Your task to perform on an android device: Search for logitech g903 on amazon.com, select the first entry, add it to the cart, then select checkout. Image 0: 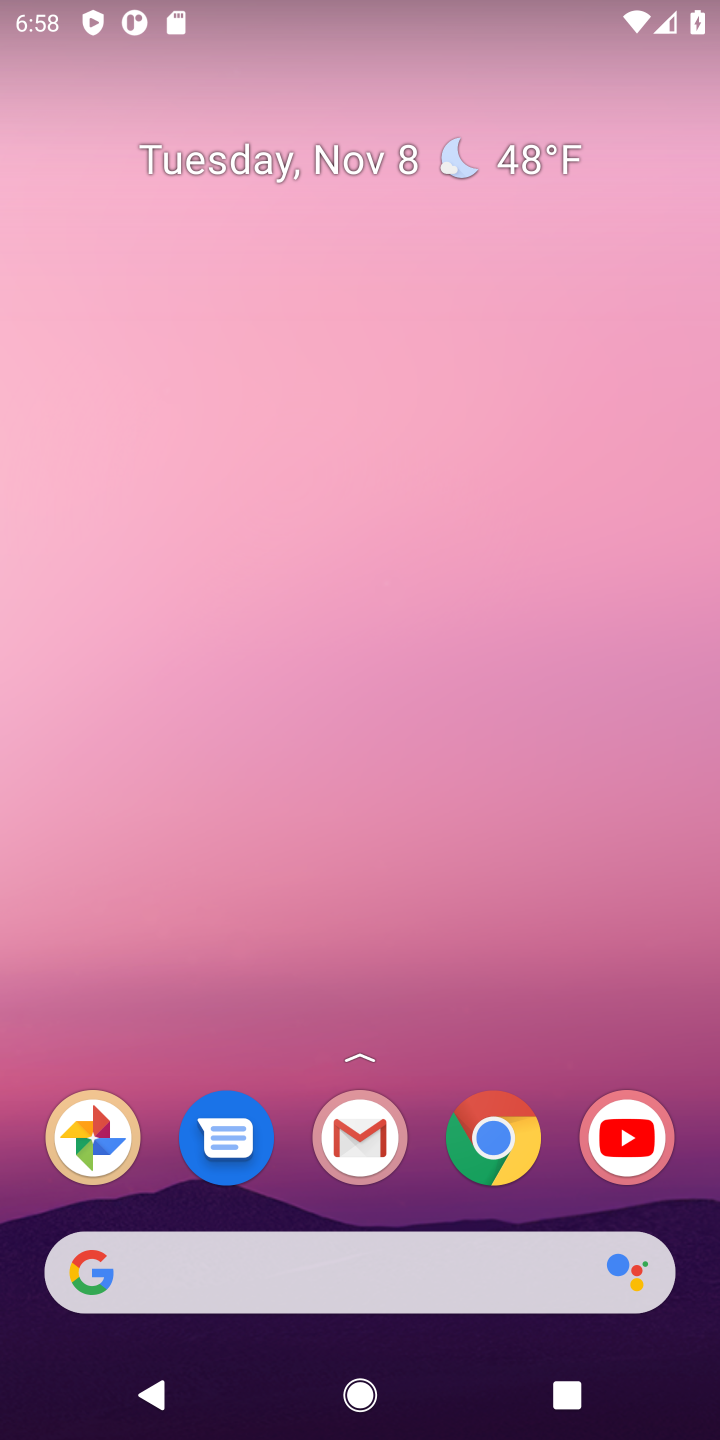
Step 0: click (505, 1133)
Your task to perform on an android device: Search for logitech g903 on amazon.com, select the first entry, add it to the cart, then select checkout. Image 1: 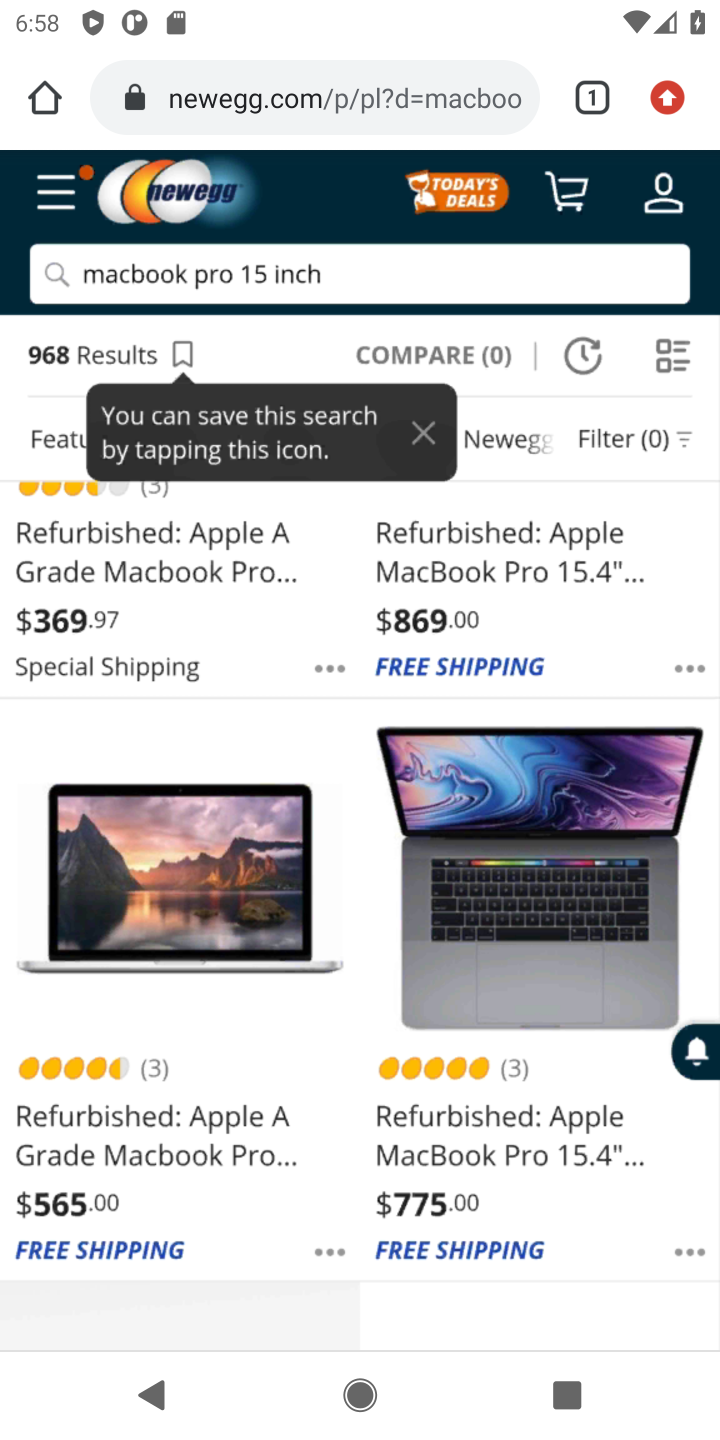
Step 1: click (398, 82)
Your task to perform on an android device: Search for logitech g903 on amazon.com, select the first entry, add it to the cart, then select checkout. Image 2: 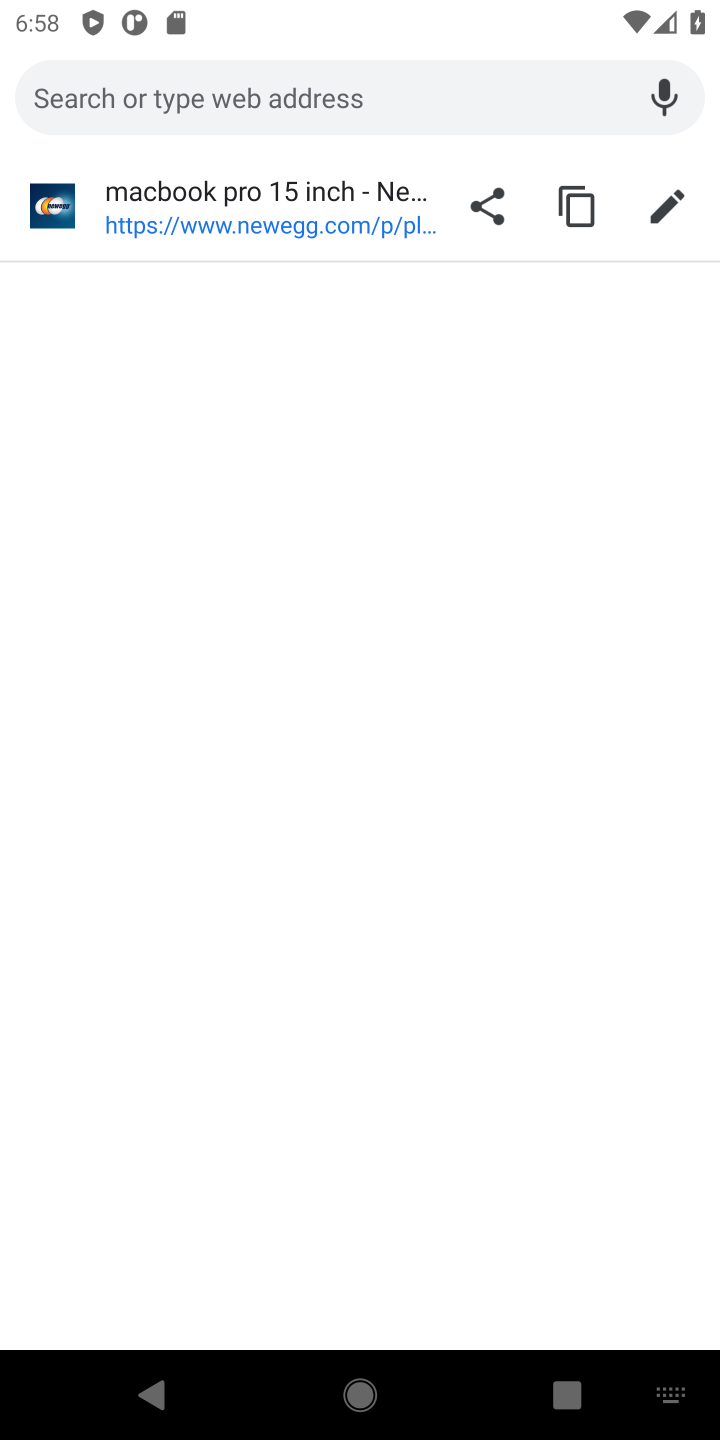
Step 2: type "amazon.com"
Your task to perform on an android device: Search for logitech g903 on amazon.com, select the first entry, add it to the cart, then select checkout. Image 3: 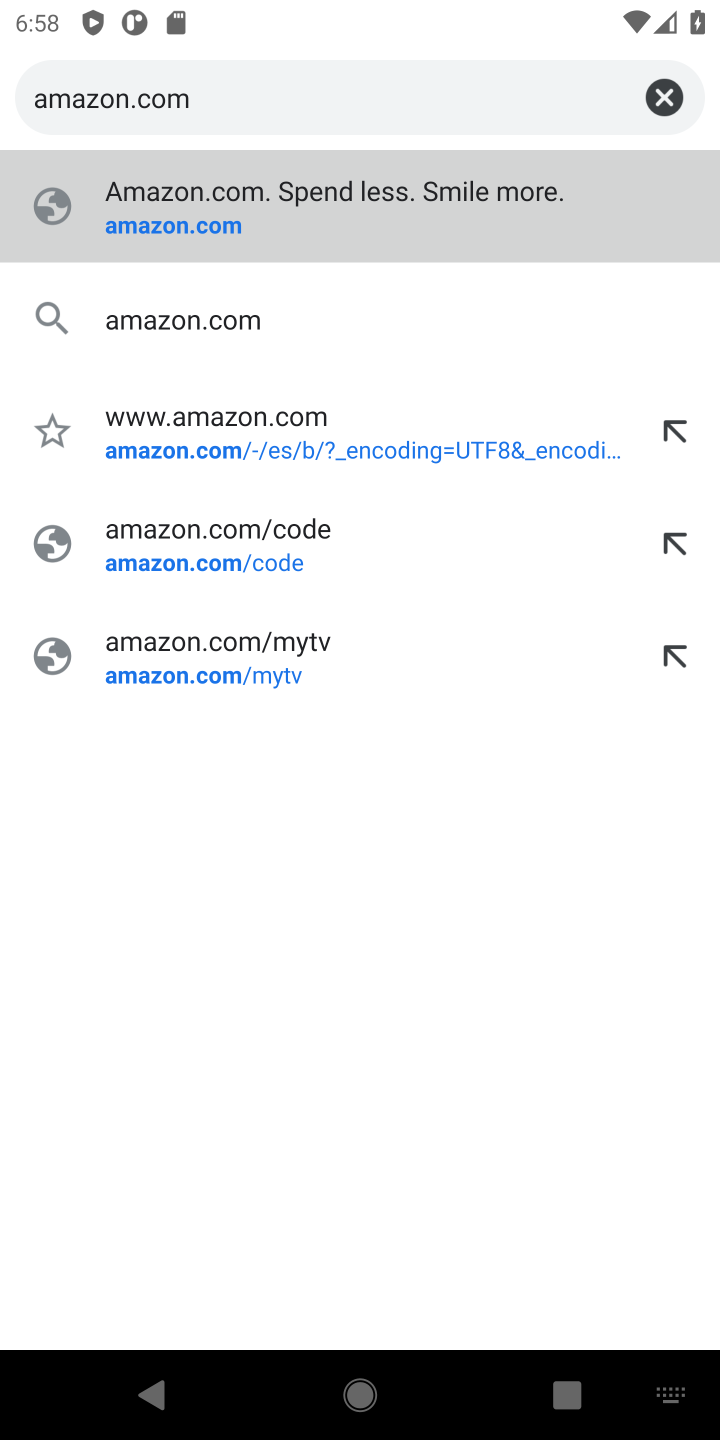
Step 3: press enter
Your task to perform on an android device: Search for logitech g903 on amazon.com, select the first entry, add it to the cart, then select checkout. Image 4: 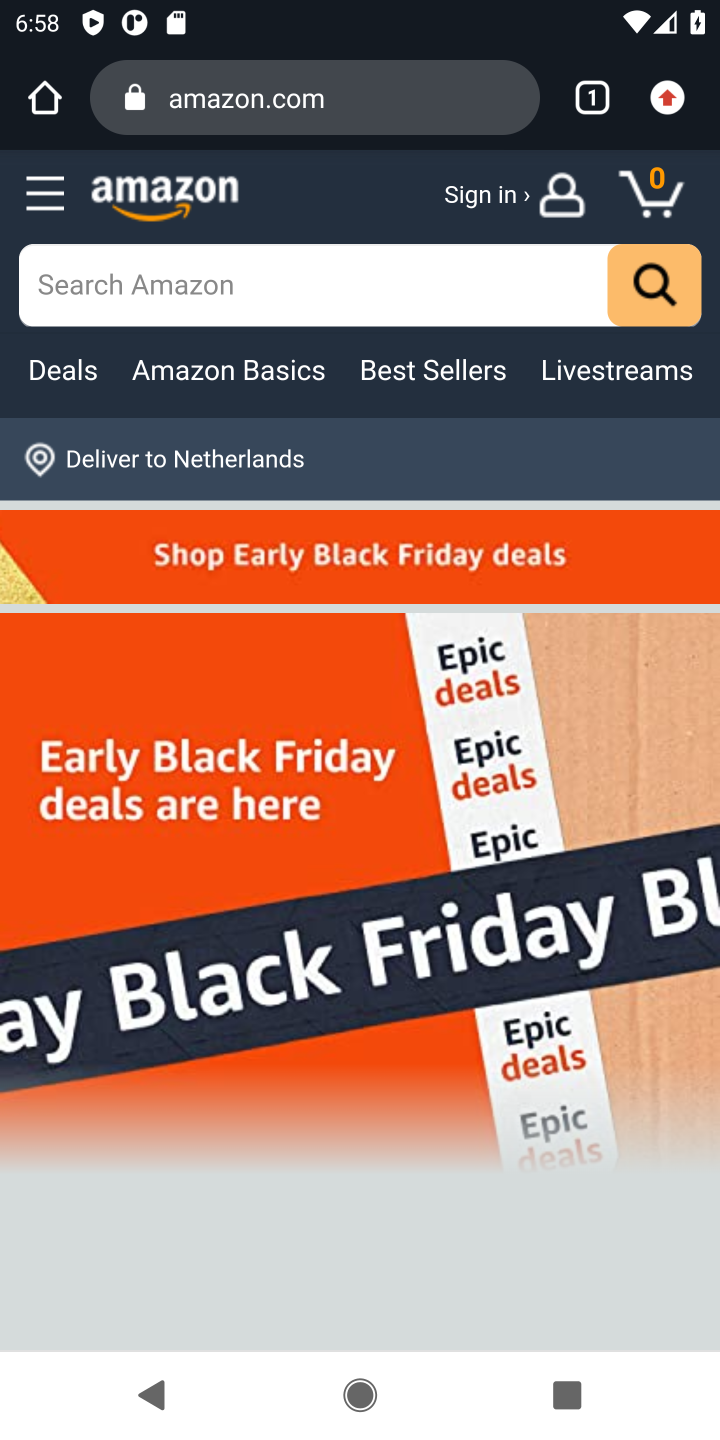
Step 4: click (303, 280)
Your task to perform on an android device: Search for logitech g903 on amazon.com, select the first entry, add it to the cart, then select checkout. Image 5: 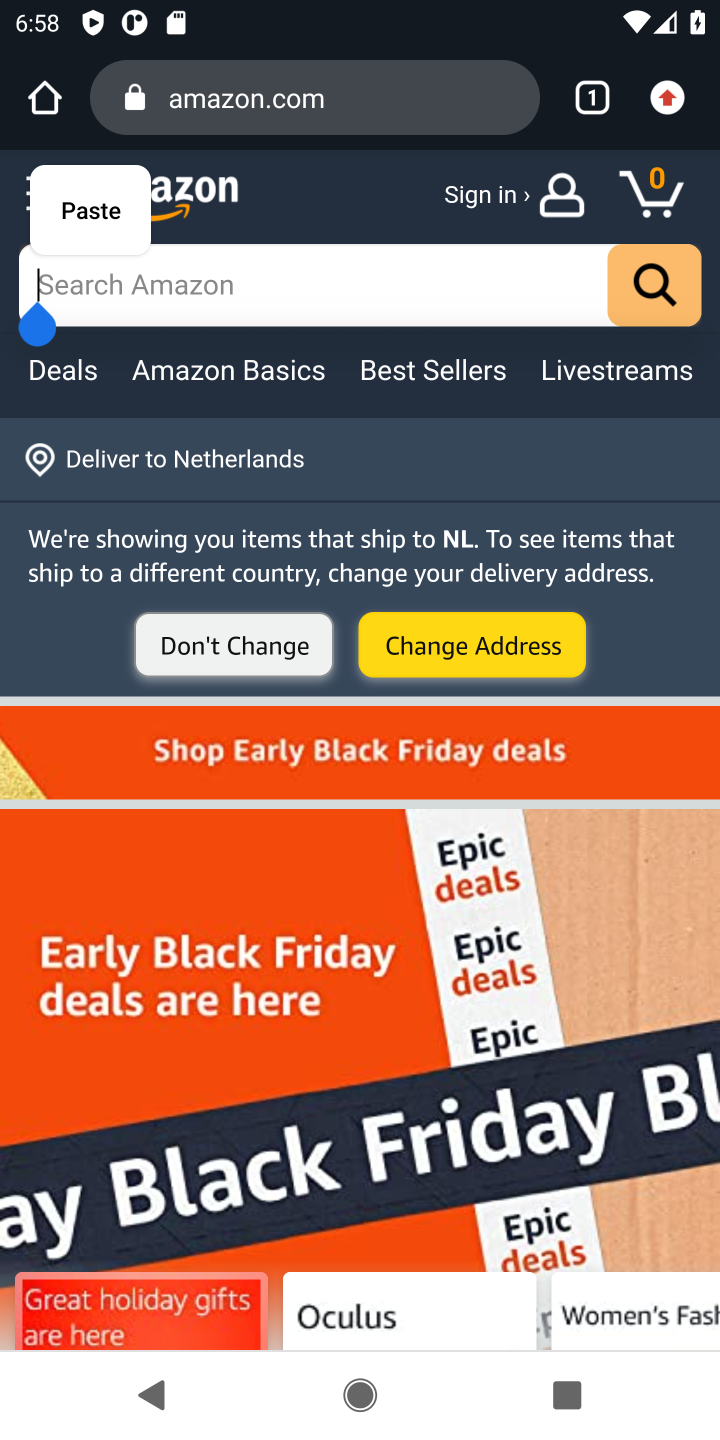
Step 5: click (214, 292)
Your task to perform on an android device: Search for logitech g903 on amazon.com, select the first entry, add it to the cart, then select checkout. Image 6: 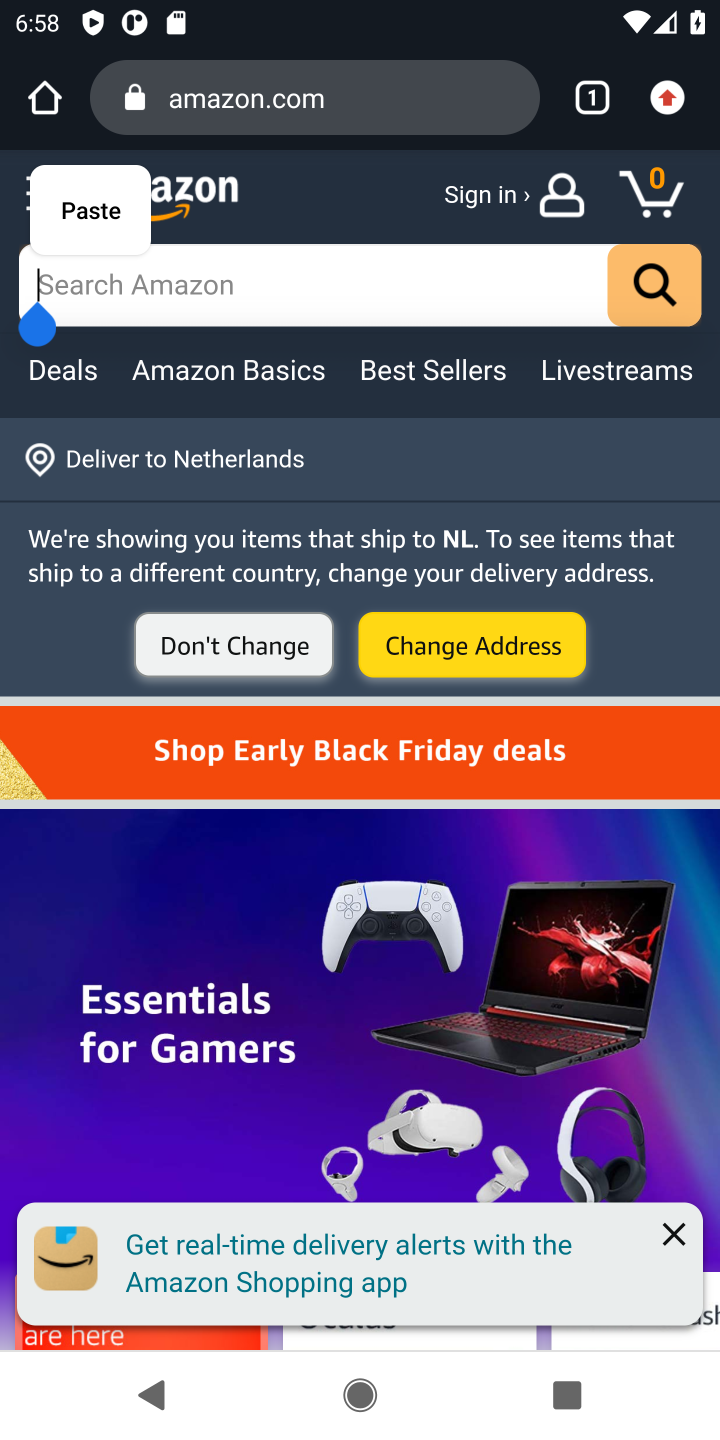
Step 6: type " logitech g903"
Your task to perform on an android device: Search for logitech g903 on amazon.com, select the first entry, add it to the cart, then select checkout. Image 7: 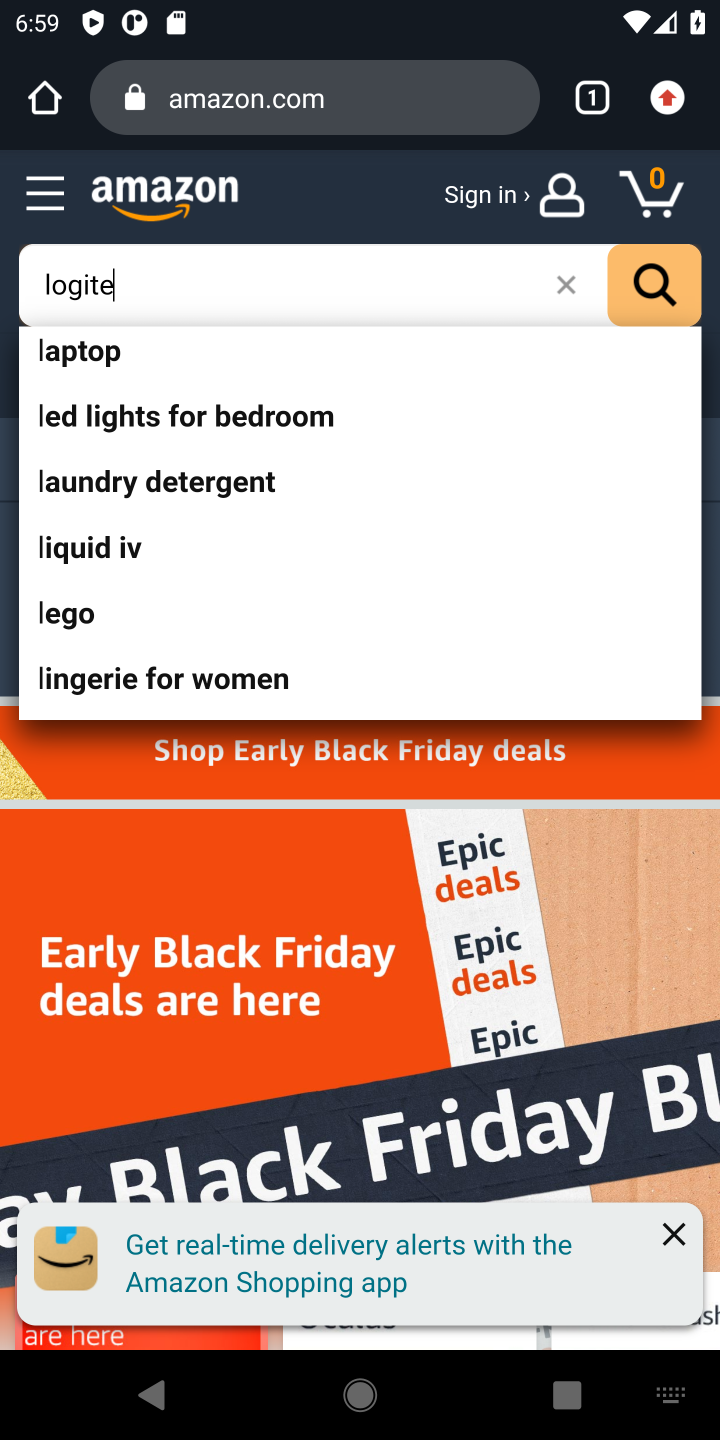
Step 7: press enter
Your task to perform on an android device: Search for logitech g903 on amazon.com, select the first entry, add it to the cart, then select checkout. Image 8: 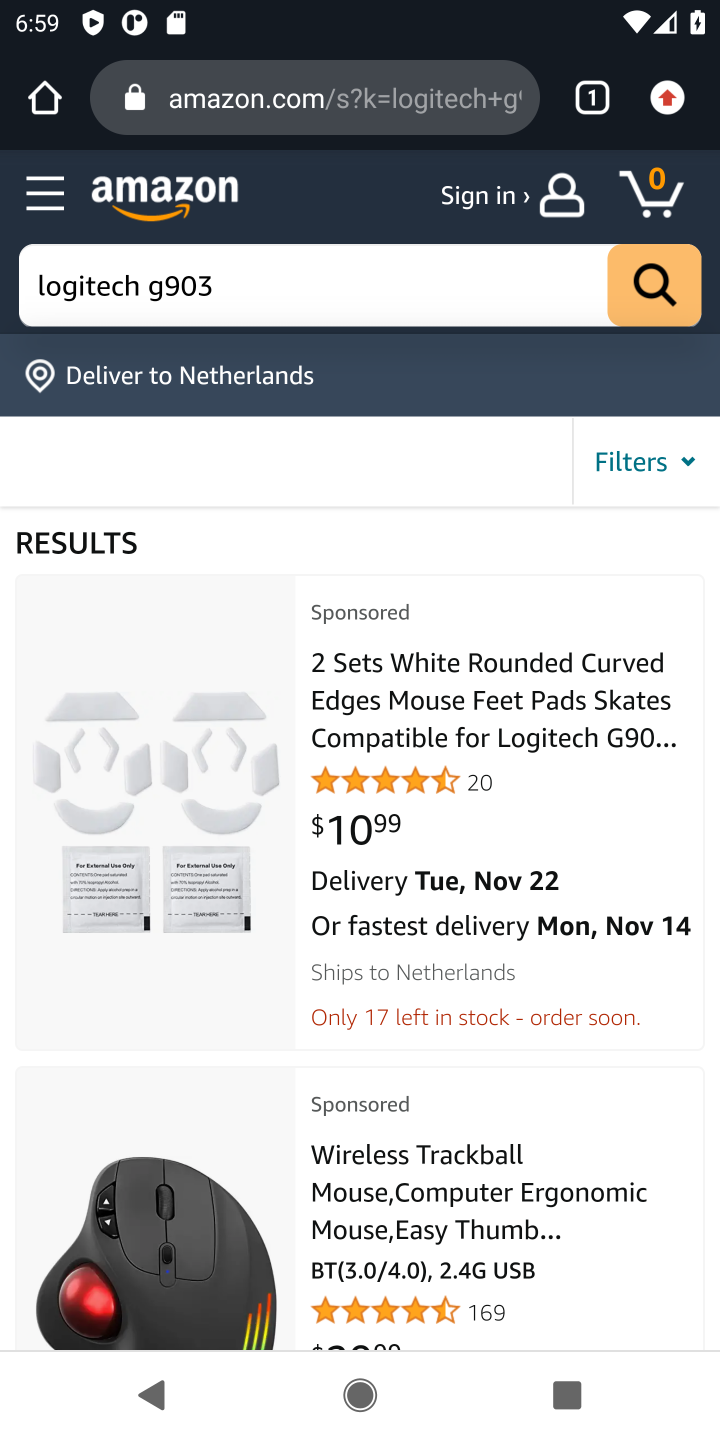
Step 8: task complete